Your task to perform on an android device: delete browsing data in the chrome app Image 0: 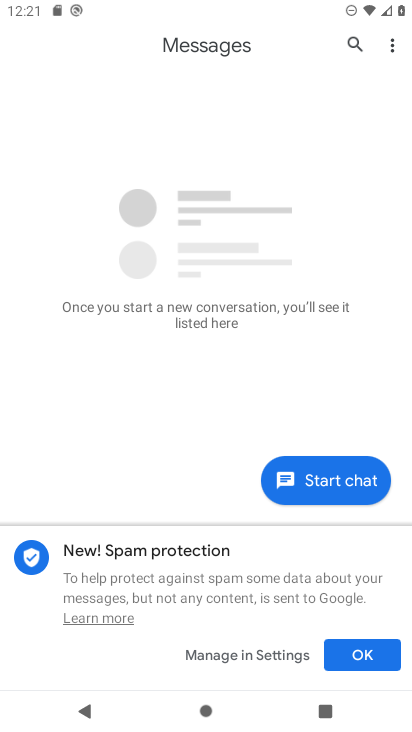
Step 0: press home button
Your task to perform on an android device: delete browsing data in the chrome app Image 1: 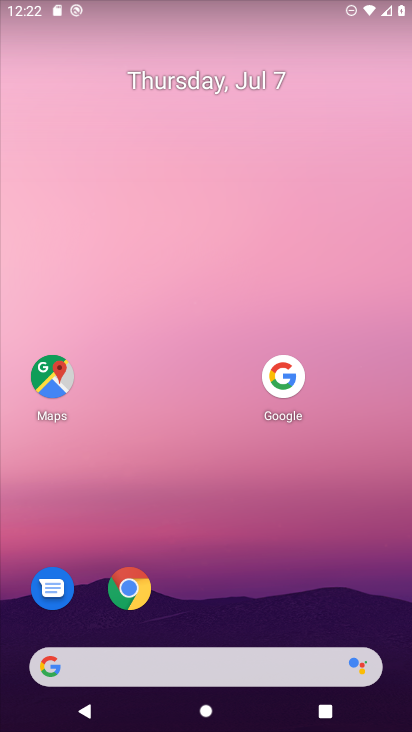
Step 1: click (119, 583)
Your task to perform on an android device: delete browsing data in the chrome app Image 2: 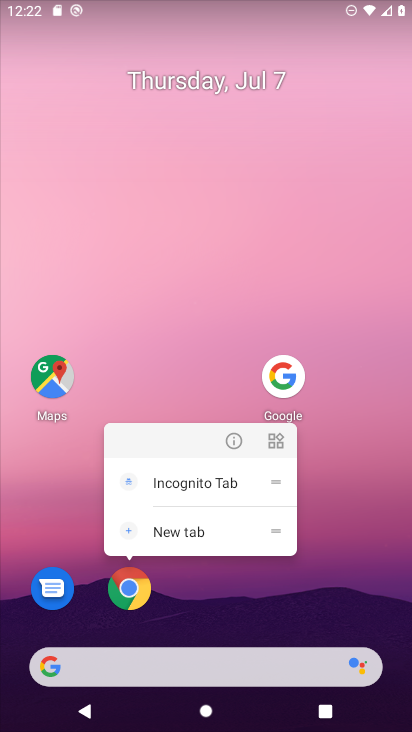
Step 2: click (133, 591)
Your task to perform on an android device: delete browsing data in the chrome app Image 3: 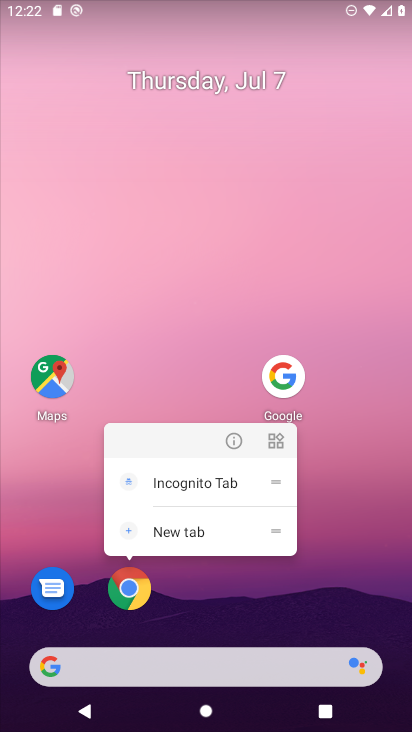
Step 3: click (138, 587)
Your task to perform on an android device: delete browsing data in the chrome app Image 4: 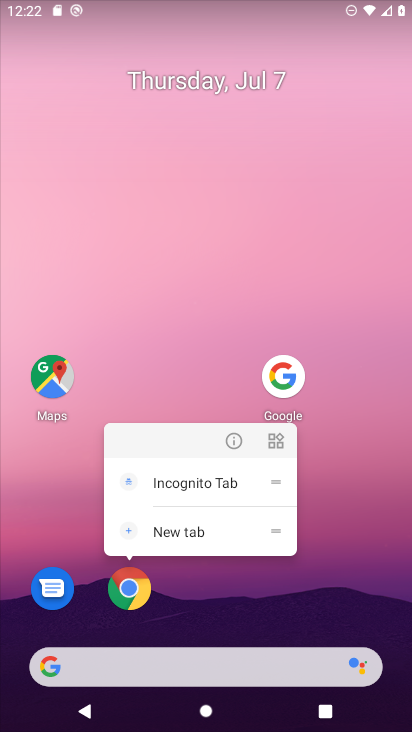
Step 4: click (122, 593)
Your task to perform on an android device: delete browsing data in the chrome app Image 5: 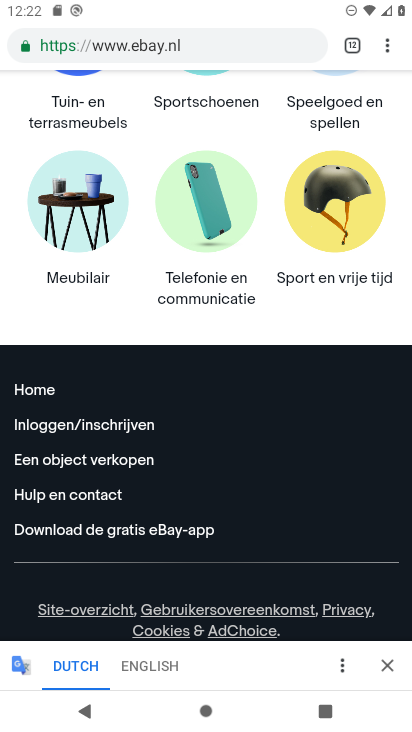
Step 5: click (386, 56)
Your task to perform on an android device: delete browsing data in the chrome app Image 6: 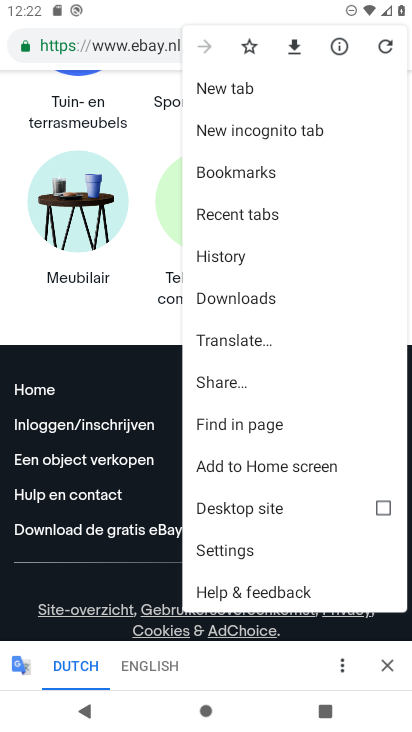
Step 6: click (219, 556)
Your task to perform on an android device: delete browsing data in the chrome app Image 7: 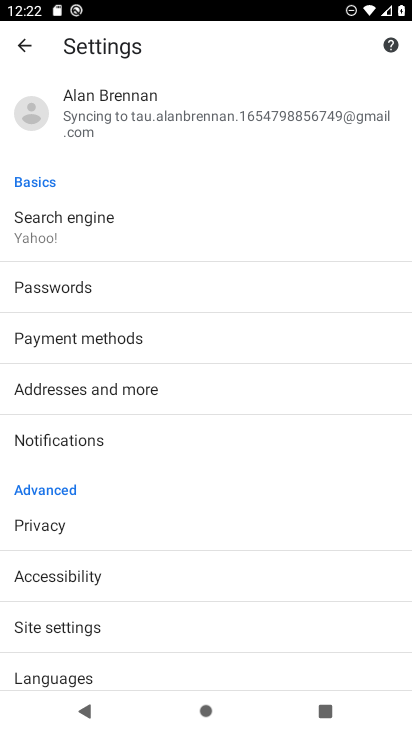
Step 7: click (54, 524)
Your task to perform on an android device: delete browsing data in the chrome app Image 8: 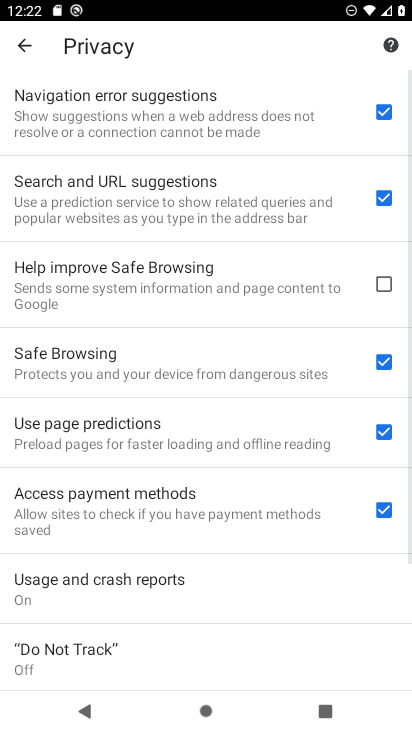
Step 8: drag from (166, 656) to (298, 92)
Your task to perform on an android device: delete browsing data in the chrome app Image 9: 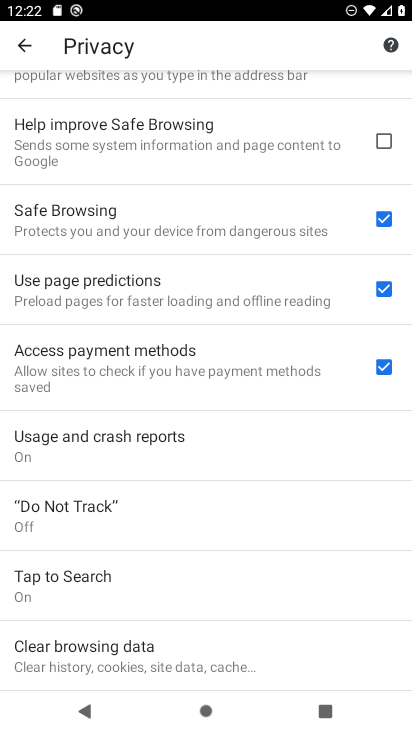
Step 9: click (53, 652)
Your task to perform on an android device: delete browsing data in the chrome app Image 10: 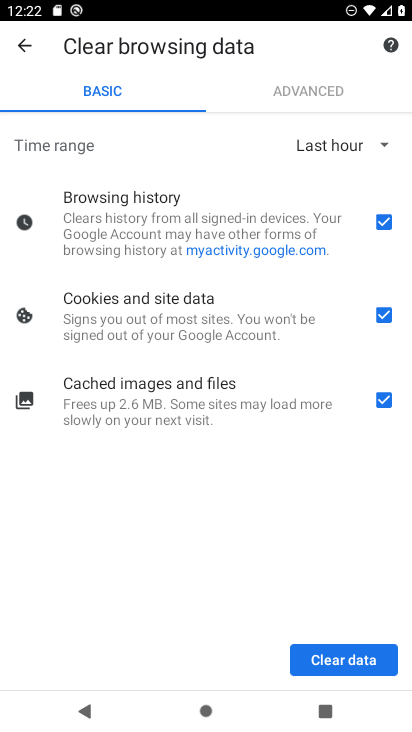
Step 10: click (380, 397)
Your task to perform on an android device: delete browsing data in the chrome app Image 11: 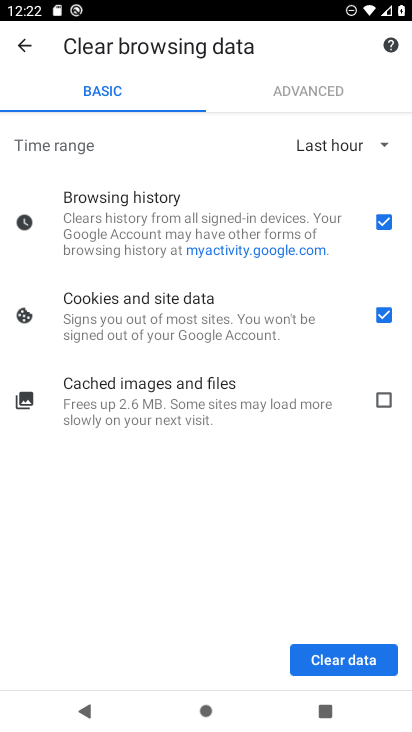
Step 11: click (383, 311)
Your task to perform on an android device: delete browsing data in the chrome app Image 12: 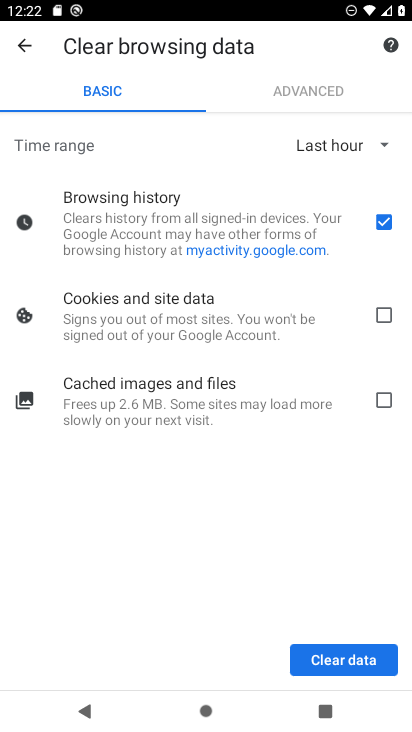
Step 12: click (355, 658)
Your task to perform on an android device: delete browsing data in the chrome app Image 13: 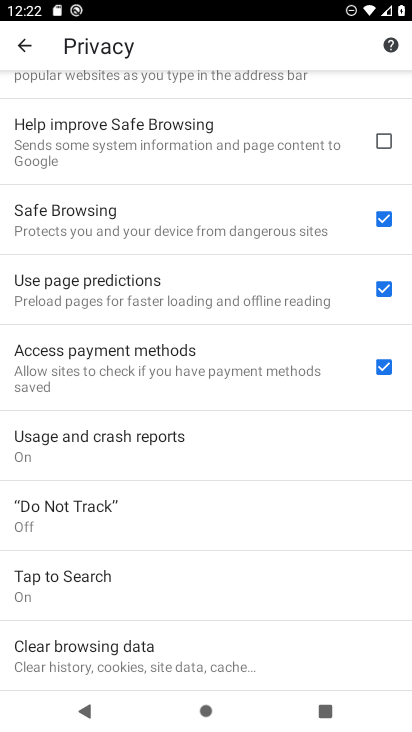
Step 13: task complete